Your task to perform on an android device: set the timer Image 0: 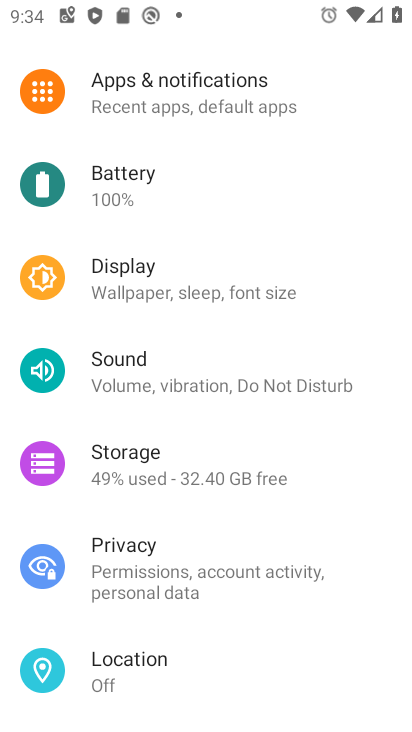
Step 0: press home button
Your task to perform on an android device: set the timer Image 1: 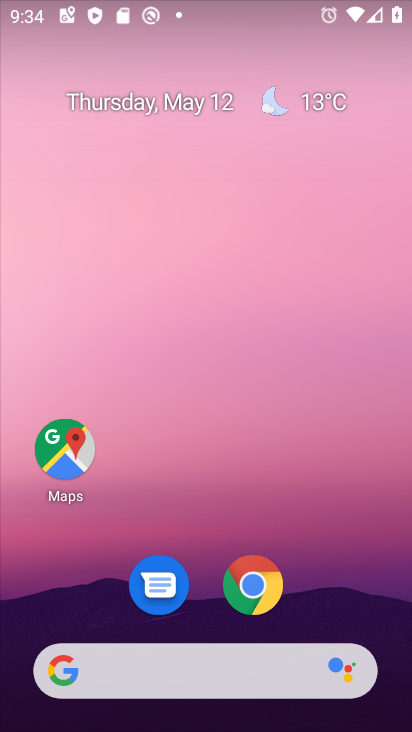
Step 1: drag from (235, 487) to (242, 14)
Your task to perform on an android device: set the timer Image 2: 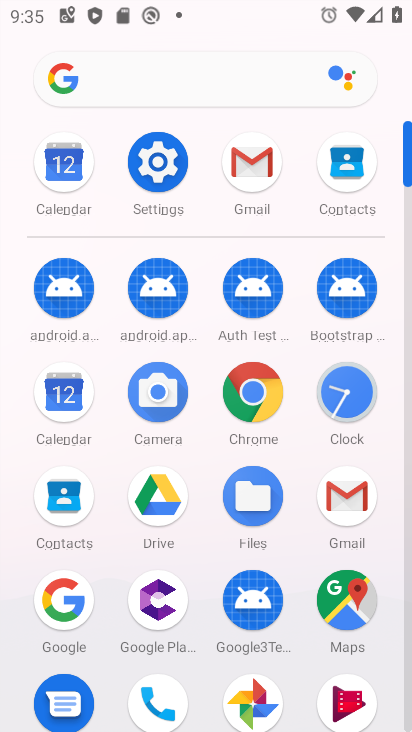
Step 2: click (354, 382)
Your task to perform on an android device: set the timer Image 3: 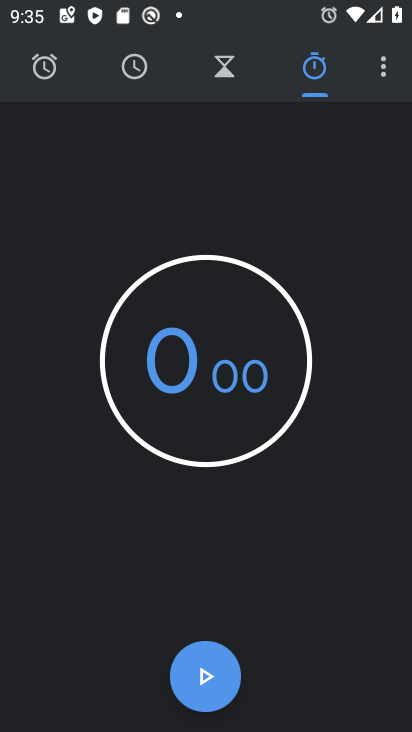
Step 3: click (225, 63)
Your task to perform on an android device: set the timer Image 4: 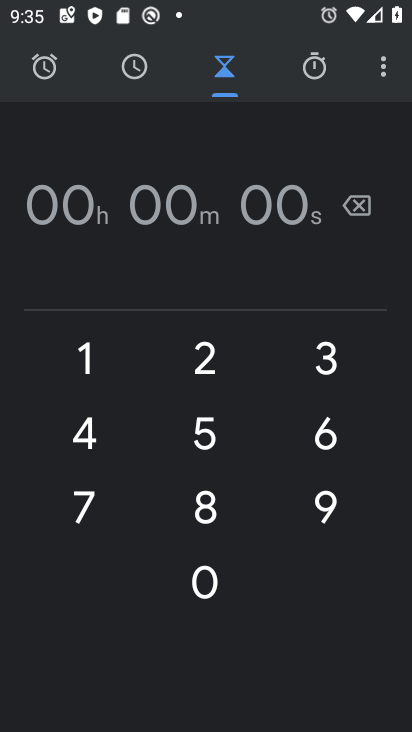
Step 4: click (82, 344)
Your task to perform on an android device: set the timer Image 5: 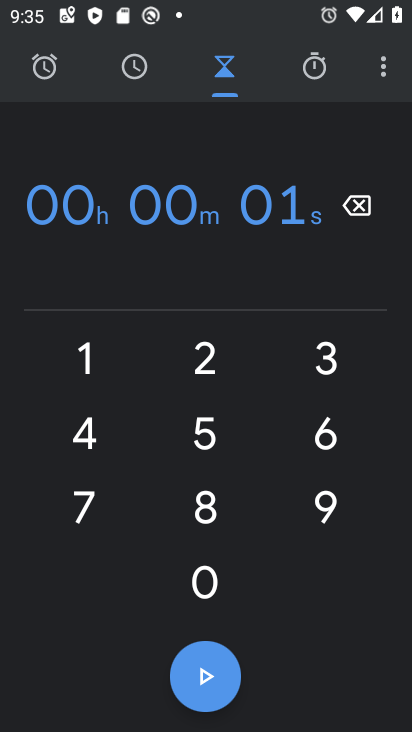
Step 5: click (85, 349)
Your task to perform on an android device: set the timer Image 6: 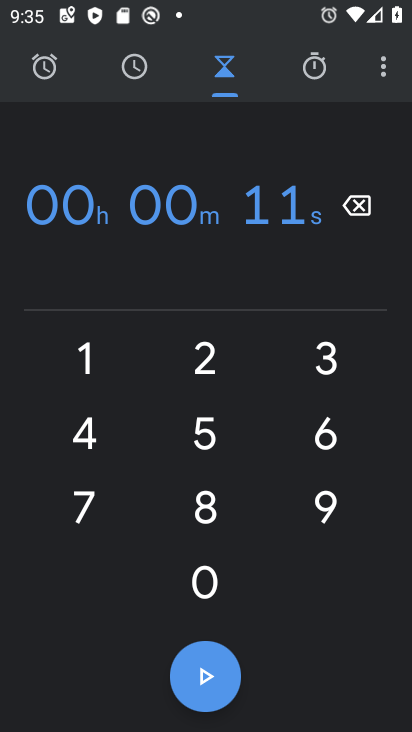
Step 6: task complete